Your task to perform on an android device: See recent photos Image 0: 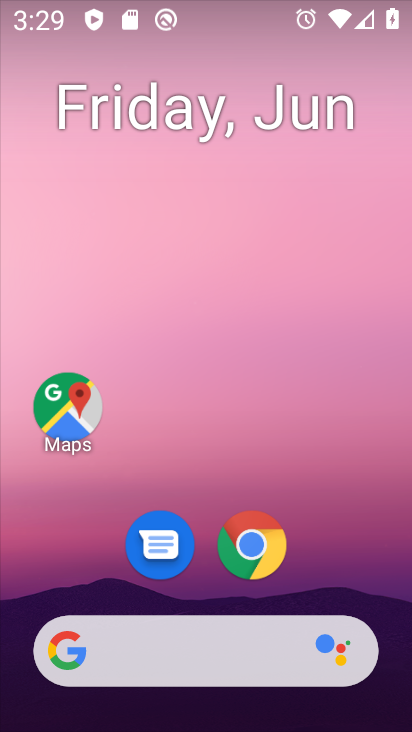
Step 0: drag from (316, 572) to (341, 86)
Your task to perform on an android device: See recent photos Image 1: 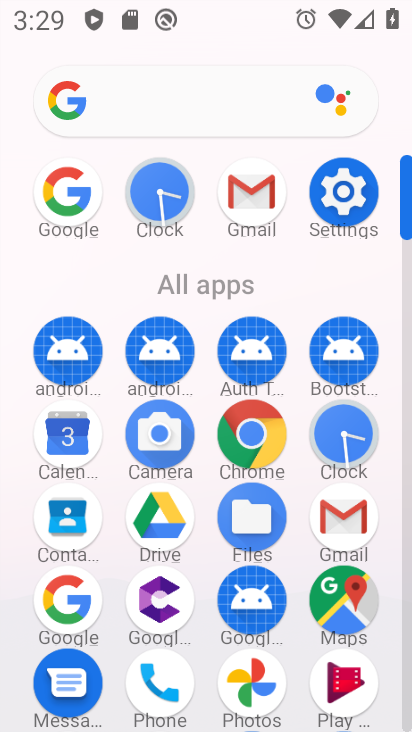
Step 1: click (249, 691)
Your task to perform on an android device: See recent photos Image 2: 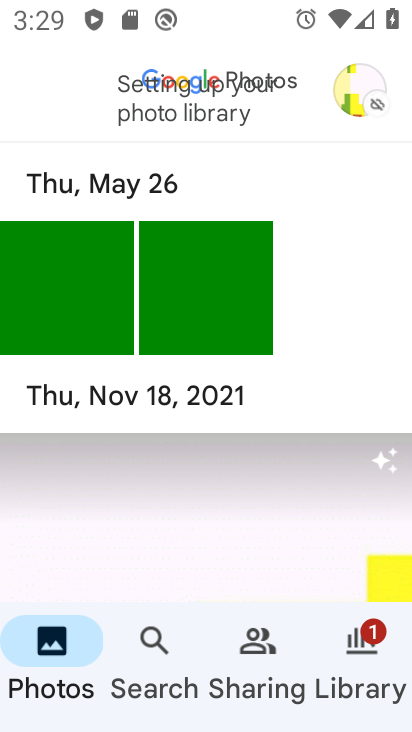
Step 2: task complete